Your task to perform on an android device: set an alarm Image 0: 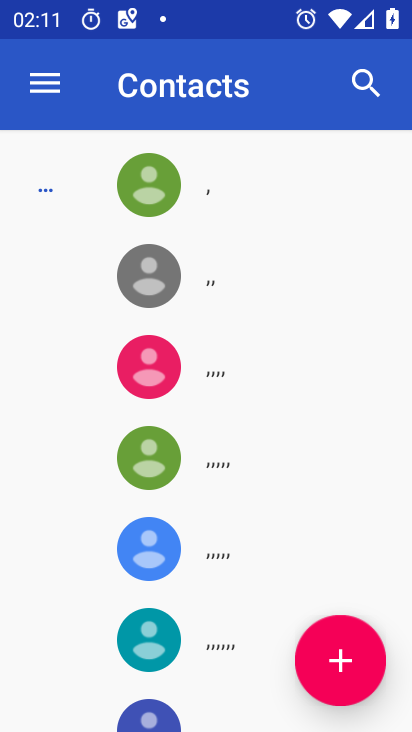
Step 0: press home button
Your task to perform on an android device: set an alarm Image 1: 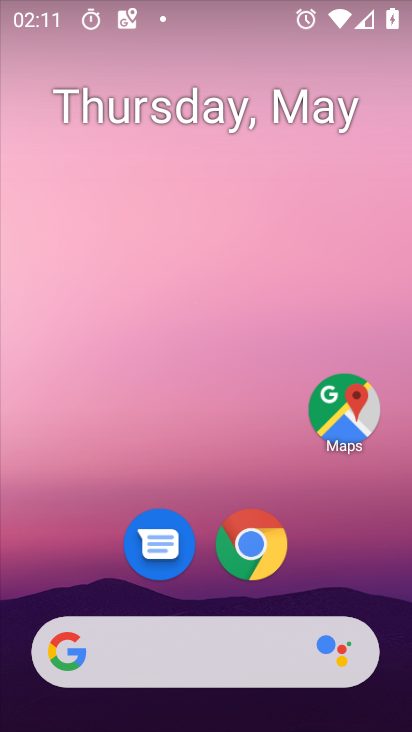
Step 1: drag from (373, 565) to (382, 194)
Your task to perform on an android device: set an alarm Image 2: 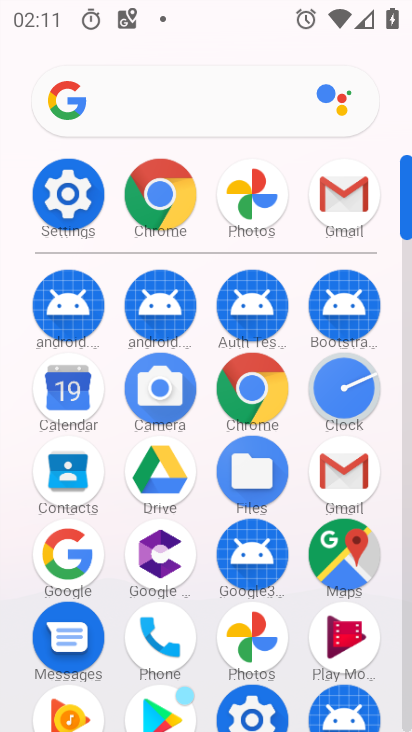
Step 2: click (356, 405)
Your task to perform on an android device: set an alarm Image 3: 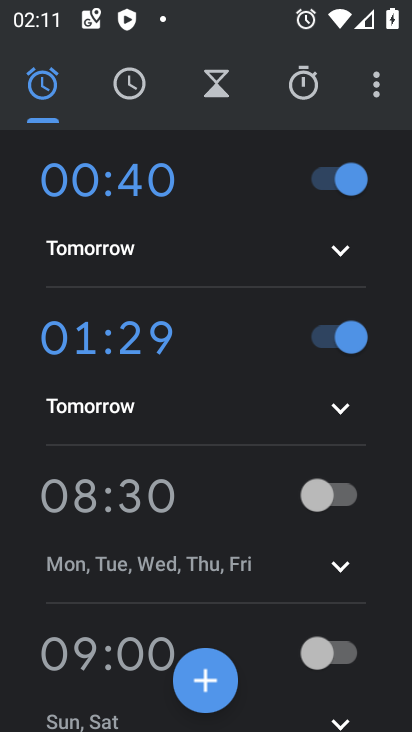
Step 3: click (199, 693)
Your task to perform on an android device: set an alarm Image 4: 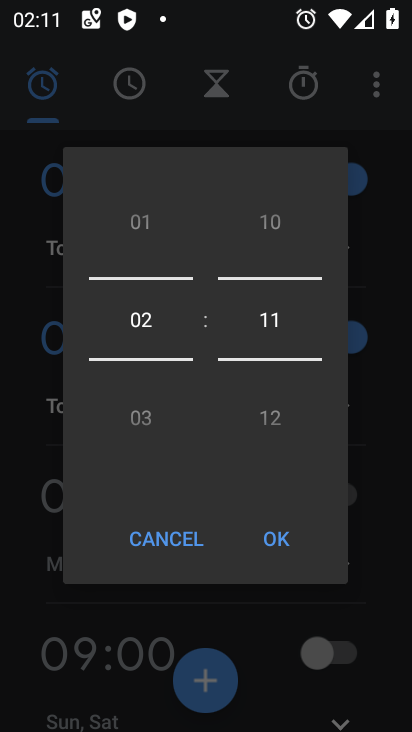
Step 4: click (282, 552)
Your task to perform on an android device: set an alarm Image 5: 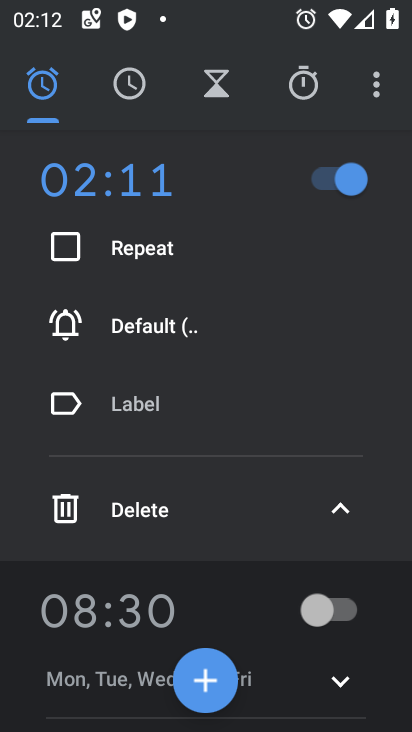
Step 5: click (210, 684)
Your task to perform on an android device: set an alarm Image 6: 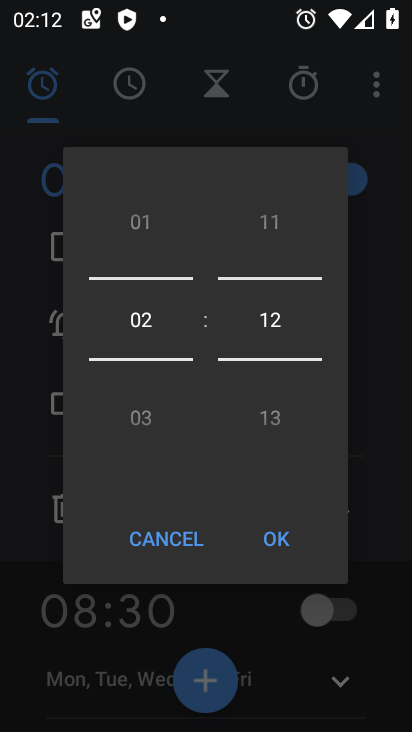
Step 6: click (272, 546)
Your task to perform on an android device: set an alarm Image 7: 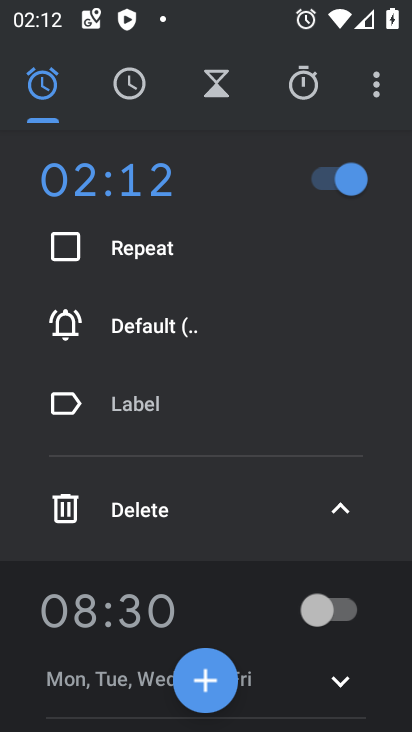
Step 7: task complete